Your task to perform on an android device: Go to Google Image 0: 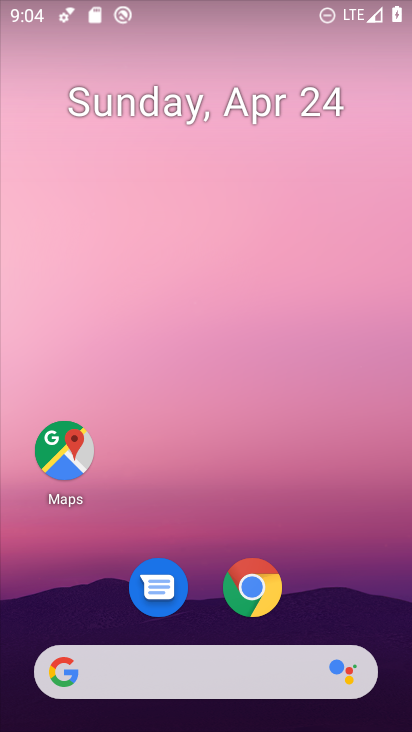
Step 0: drag from (395, 574) to (400, 179)
Your task to perform on an android device: Go to Google Image 1: 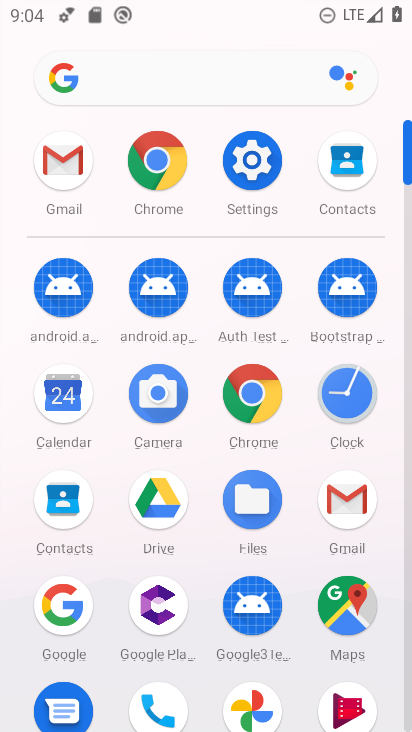
Step 1: drag from (300, 545) to (300, 289)
Your task to perform on an android device: Go to Google Image 2: 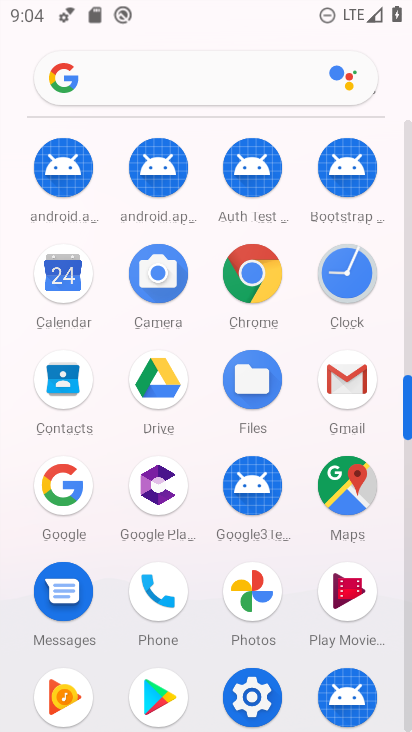
Step 2: click (61, 491)
Your task to perform on an android device: Go to Google Image 3: 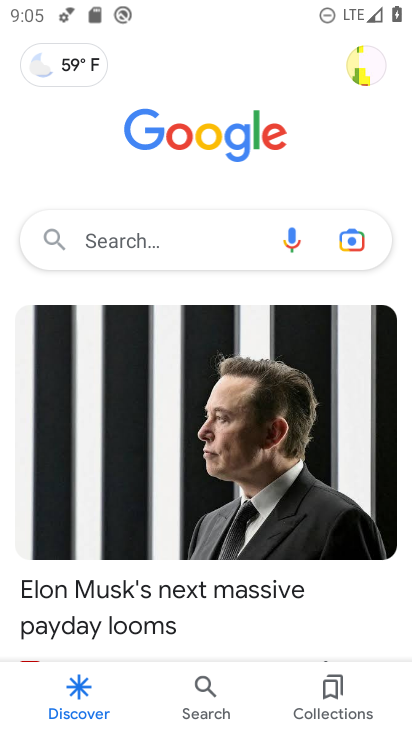
Step 3: task complete